Your task to perform on an android device: Open CNN.com Image 0: 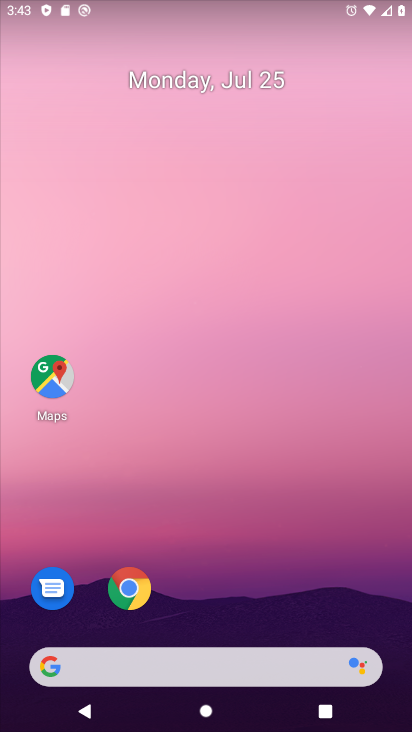
Step 0: drag from (229, 725) to (270, 147)
Your task to perform on an android device: Open CNN.com Image 1: 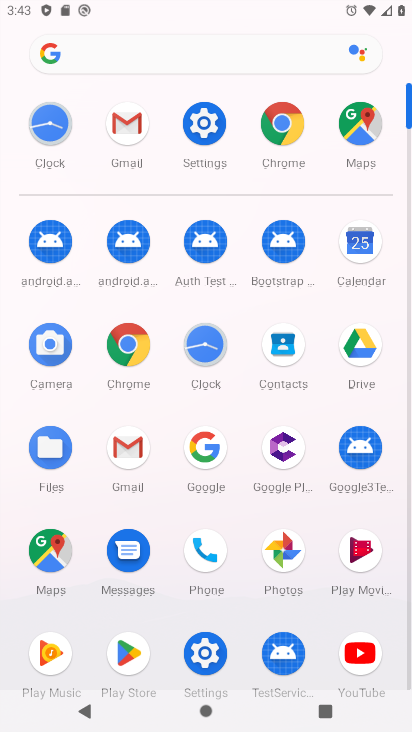
Step 1: click (279, 121)
Your task to perform on an android device: Open CNN.com Image 2: 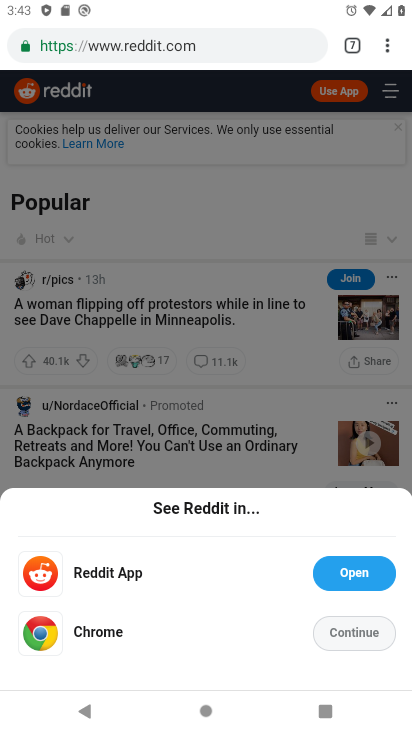
Step 2: click (388, 47)
Your task to perform on an android device: Open CNN.com Image 3: 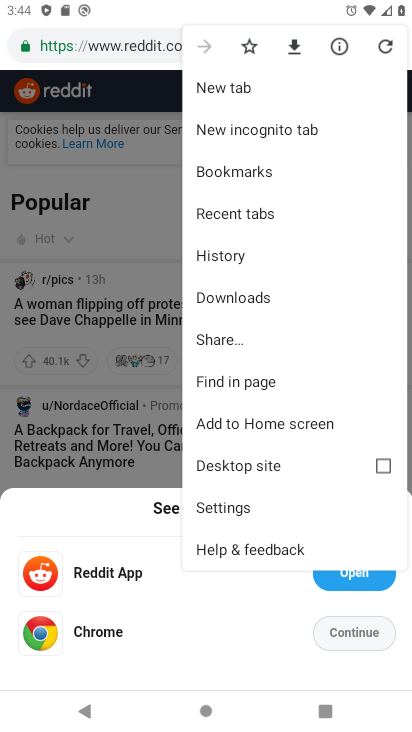
Step 3: click (225, 88)
Your task to perform on an android device: Open CNN.com Image 4: 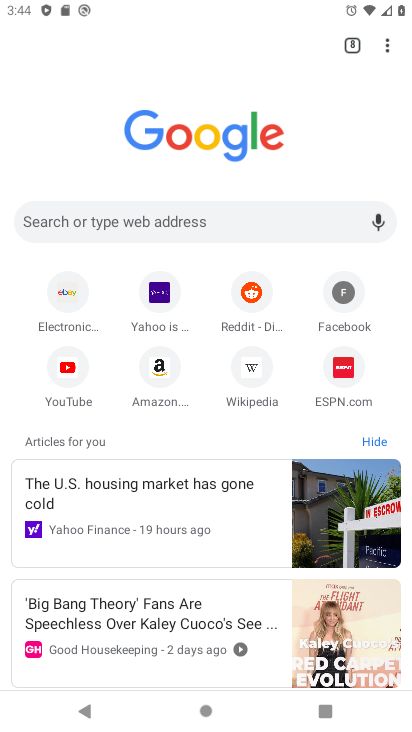
Step 4: click (219, 227)
Your task to perform on an android device: Open CNN.com Image 5: 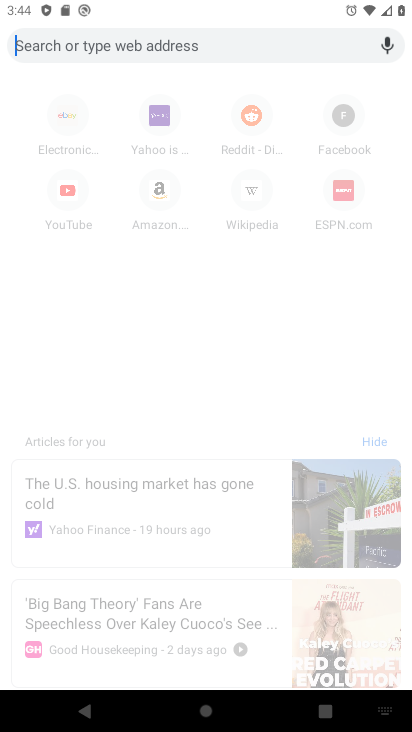
Step 5: type "CNN.com"
Your task to perform on an android device: Open CNN.com Image 6: 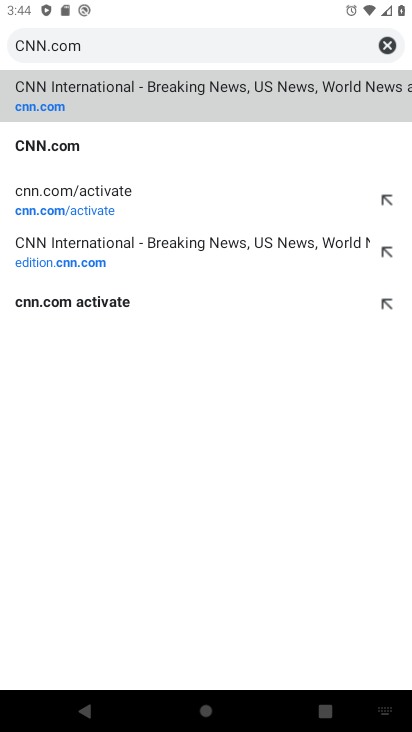
Step 6: click (51, 150)
Your task to perform on an android device: Open CNN.com Image 7: 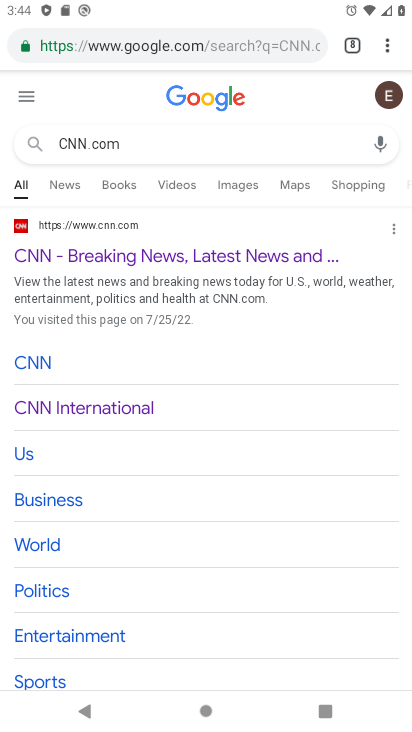
Step 7: click (42, 246)
Your task to perform on an android device: Open CNN.com Image 8: 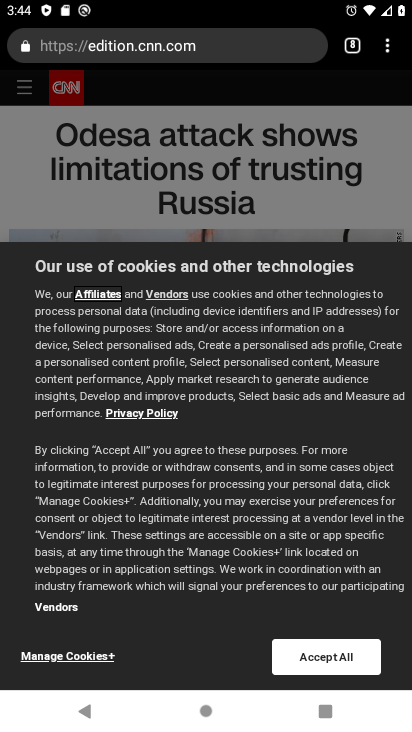
Step 8: task complete